Your task to perform on an android device: open app "Nova Launcher" (install if not already installed) Image 0: 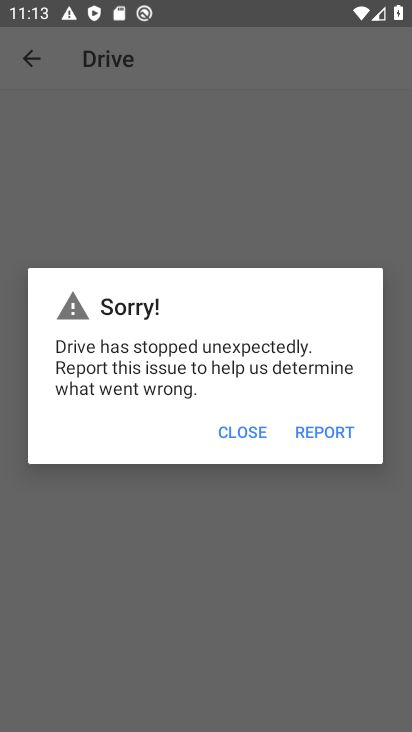
Step 0: press home button
Your task to perform on an android device: open app "Nova Launcher" (install if not already installed) Image 1: 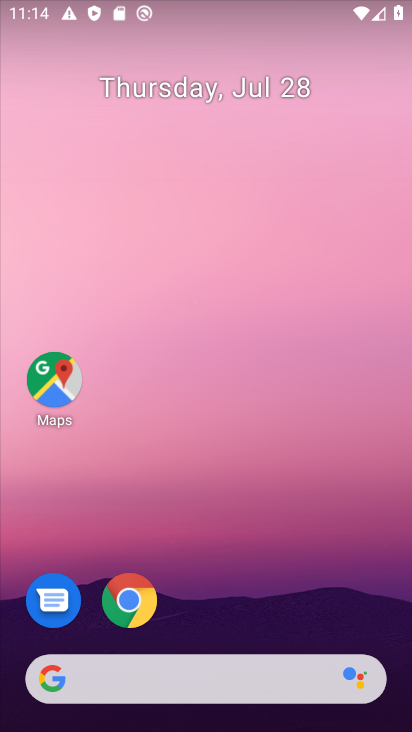
Step 1: drag from (193, 633) to (342, 180)
Your task to perform on an android device: open app "Nova Launcher" (install if not already installed) Image 2: 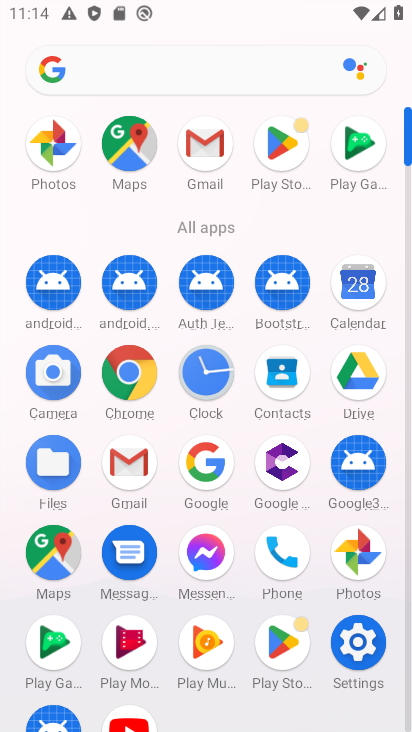
Step 2: drag from (260, 653) to (354, 205)
Your task to perform on an android device: open app "Nova Launcher" (install if not already installed) Image 3: 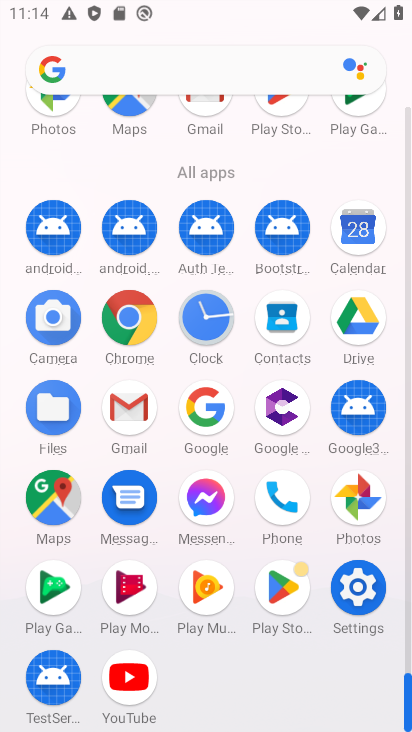
Step 3: click (293, 579)
Your task to perform on an android device: open app "Nova Launcher" (install if not already installed) Image 4: 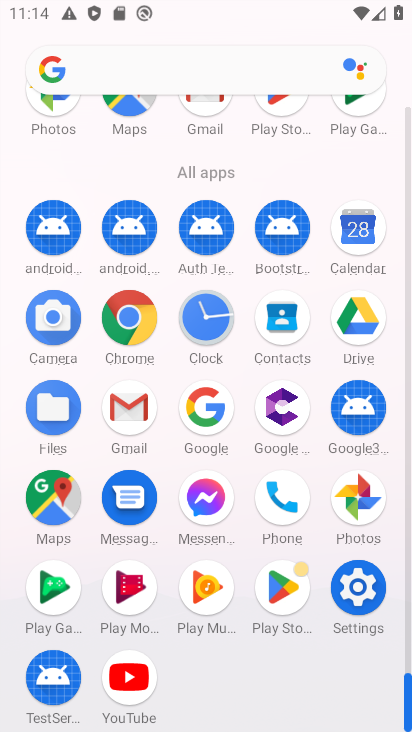
Step 4: click (293, 579)
Your task to perform on an android device: open app "Nova Launcher" (install if not already installed) Image 5: 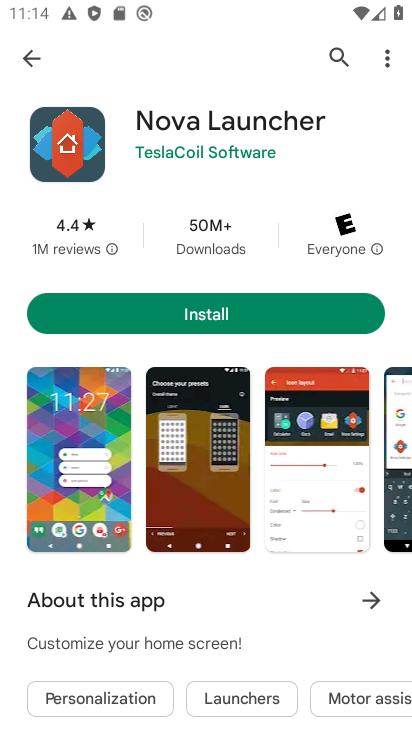
Step 5: click (272, 316)
Your task to perform on an android device: open app "Nova Launcher" (install if not already installed) Image 6: 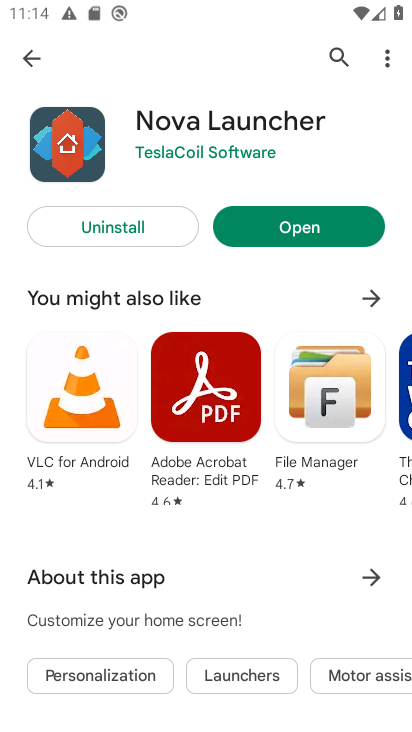
Step 6: click (321, 230)
Your task to perform on an android device: open app "Nova Launcher" (install if not already installed) Image 7: 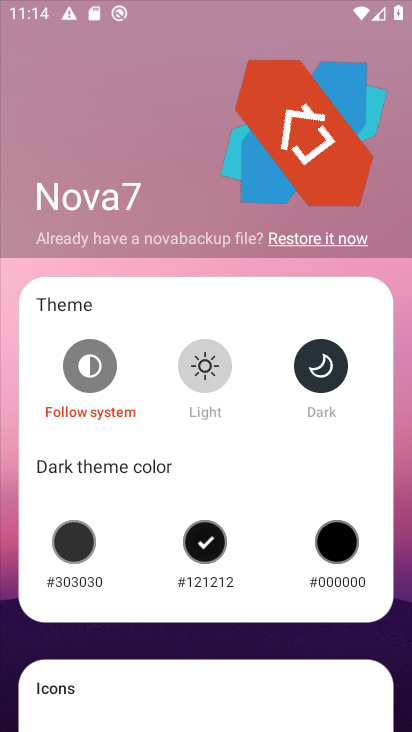
Step 7: task complete